Your task to perform on an android device: toggle notification dots Image 0: 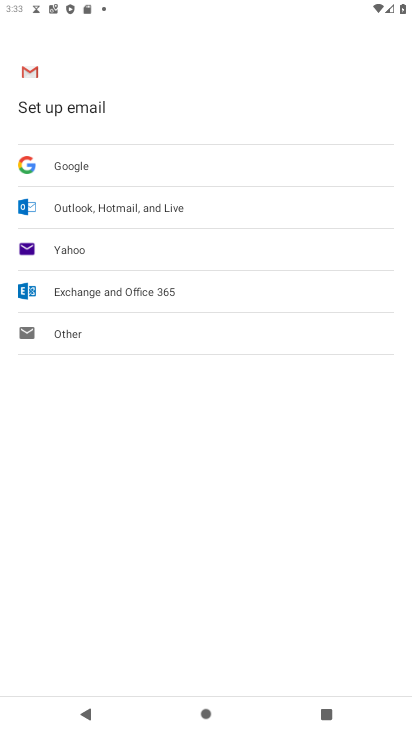
Step 0: press home button
Your task to perform on an android device: toggle notification dots Image 1: 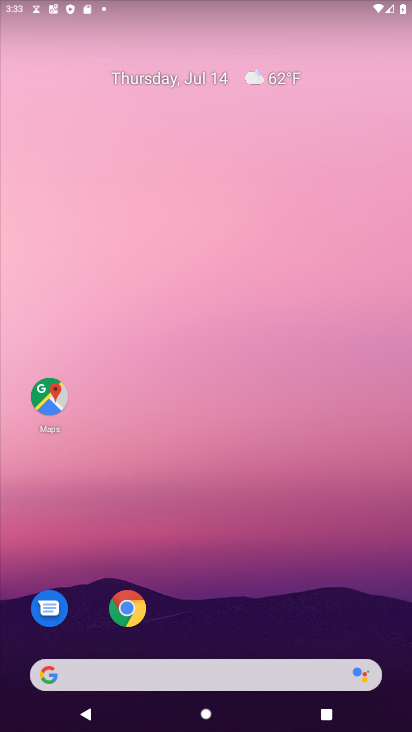
Step 1: drag from (206, 662) to (193, 44)
Your task to perform on an android device: toggle notification dots Image 2: 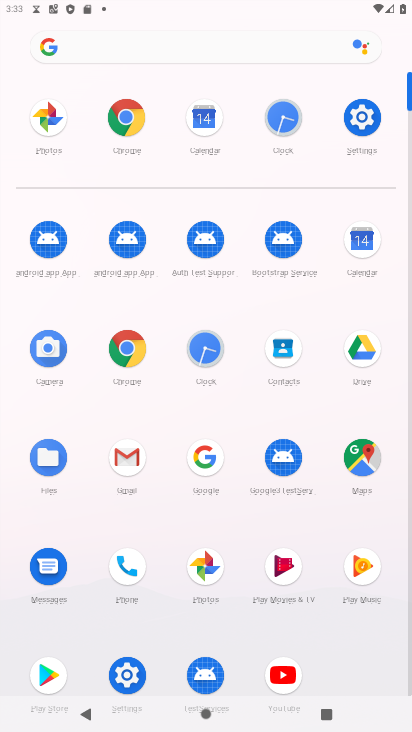
Step 2: click (361, 117)
Your task to perform on an android device: toggle notification dots Image 3: 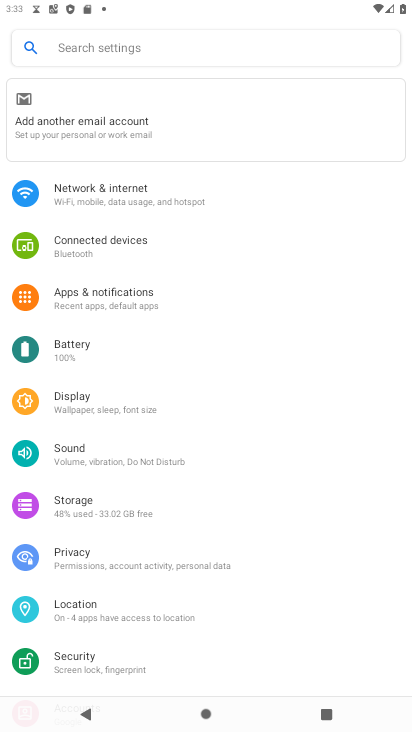
Step 3: click (114, 302)
Your task to perform on an android device: toggle notification dots Image 4: 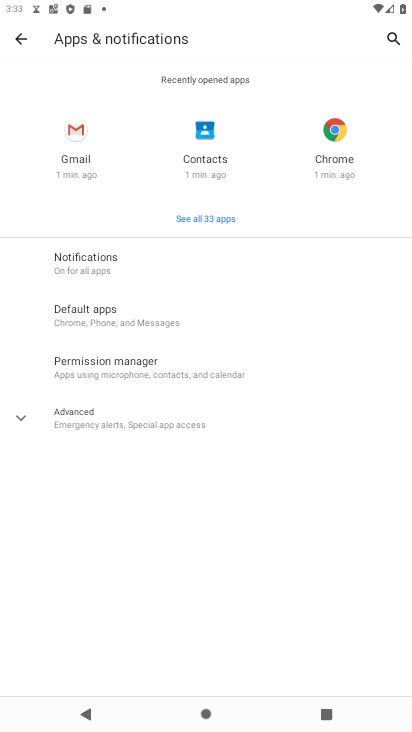
Step 4: click (97, 256)
Your task to perform on an android device: toggle notification dots Image 5: 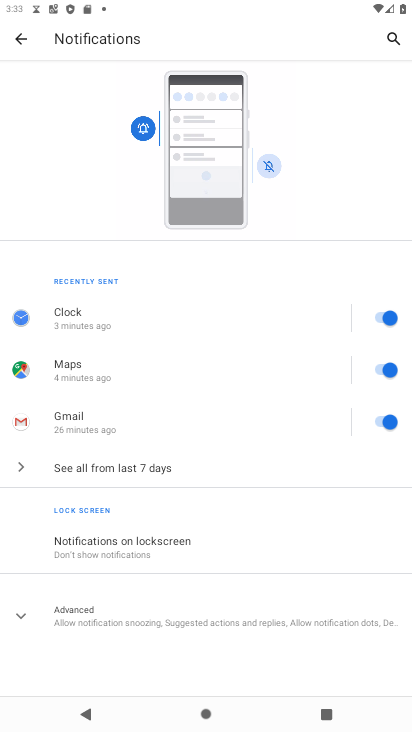
Step 5: drag from (125, 573) to (92, 179)
Your task to perform on an android device: toggle notification dots Image 6: 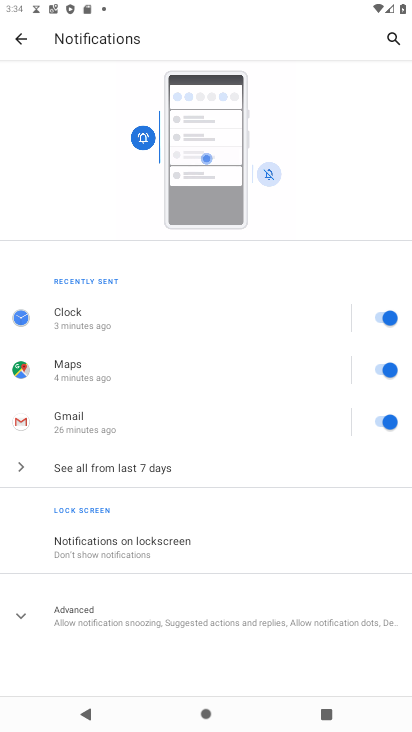
Step 6: click (98, 610)
Your task to perform on an android device: toggle notification dots Image 7: 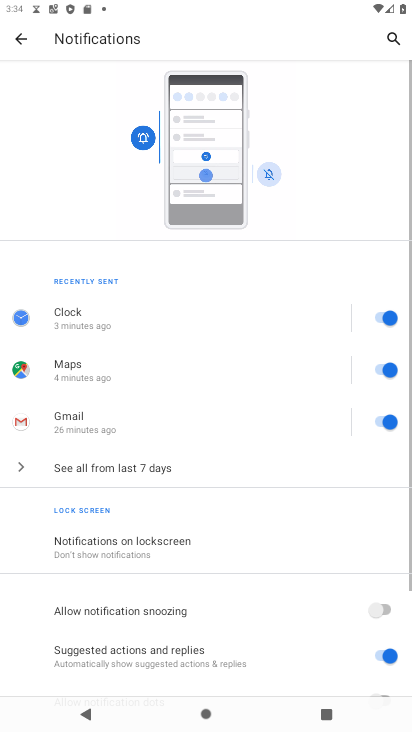
Step 7: drag from (159, 622) to (122, 193)
Your task to perform on an android device: toggle notification dots Image 8: 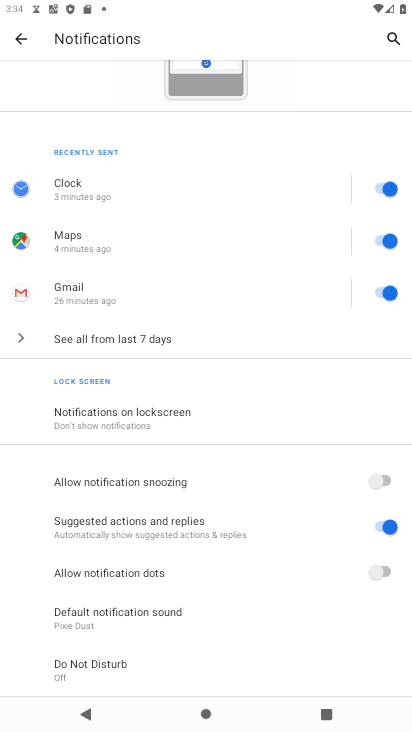
Step 8: click (383, 579)
Your task to perform on an android device: toggle notification dots Image 9: 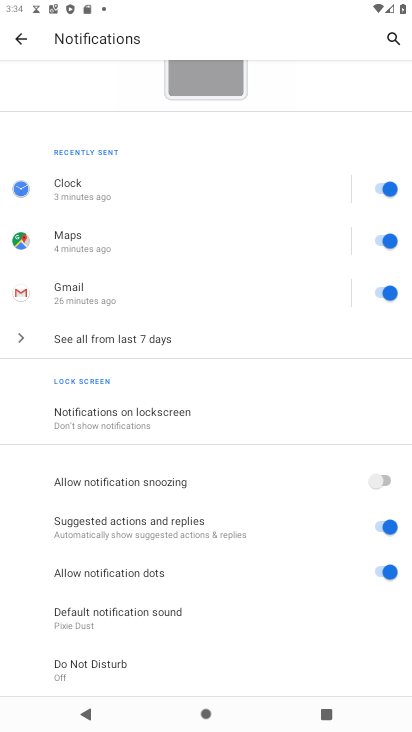
Step 9: task complete